Your task to perform on an android device: allow cookies in the chrome app Image 0: 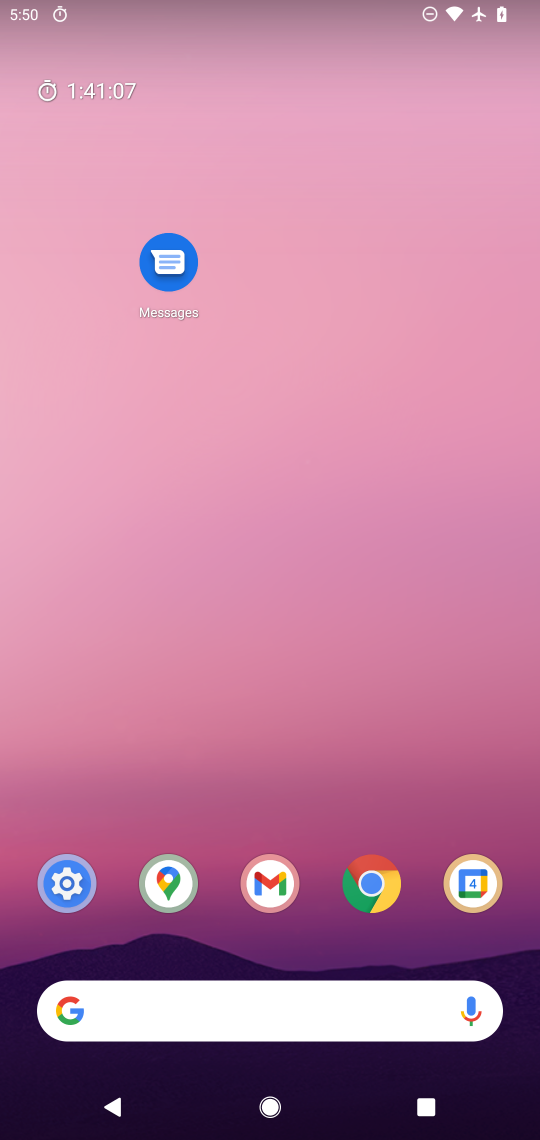
Step 0: click (376, 885)
Your task to perform on an android device: allow cookies in the chrome app Image 1: 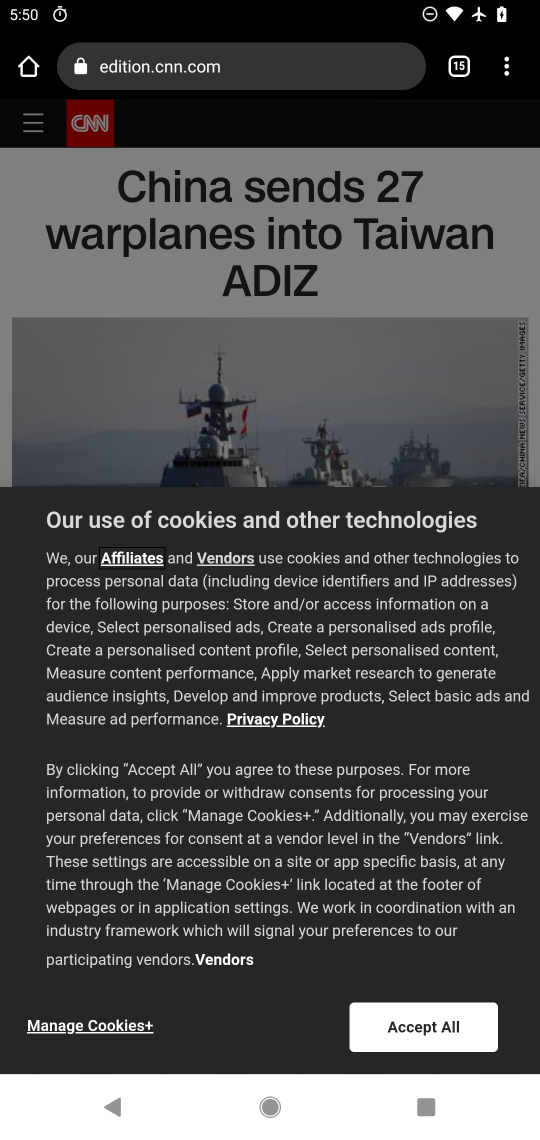
Step 1: click (509, 76)
Your task to perform on an android device: allow cookies in the chrome app Image 2: 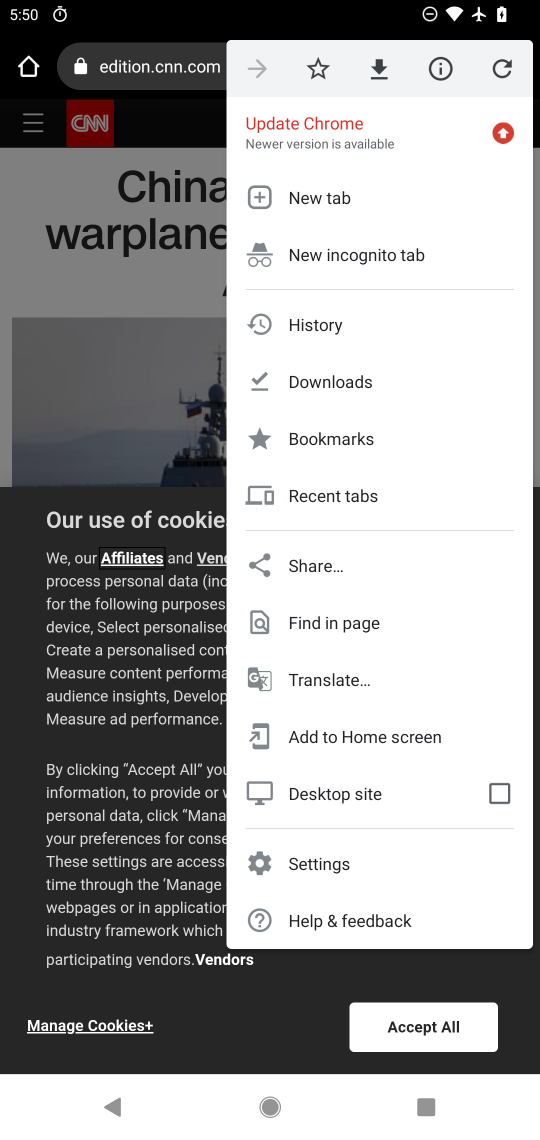
Step 2: click (317, 864)
Your task to perform on an android device: allow cookies in the chrome app Image 3: 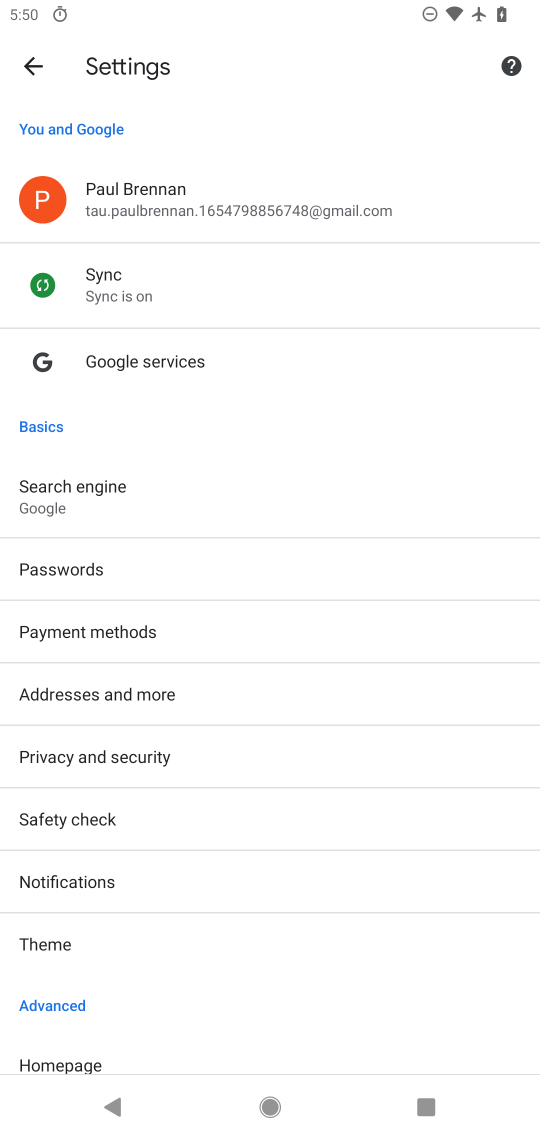
Step 3: drag from (188, 1001) to (219, 643)
Your task to perform on an android device: allow cookies in the chrome app Image 4: 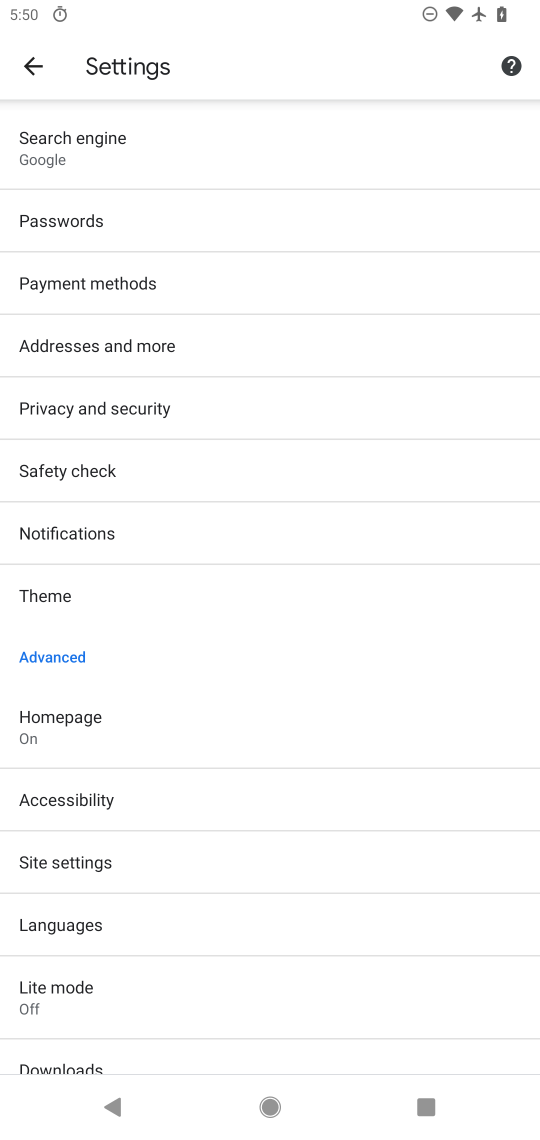
Step 4: click (64, 860)
Your task to perform on an android device: allow cookies in the chrome app Image 5: 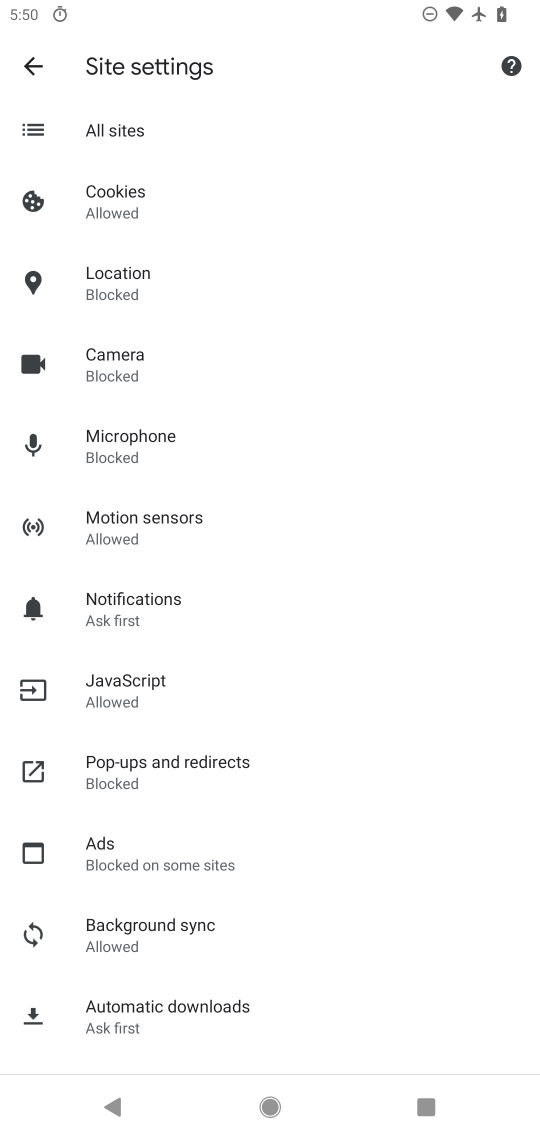
Step 5: click (119, 196)
Your task to perform on an android device: allow cookies in the chrome app Image 6: 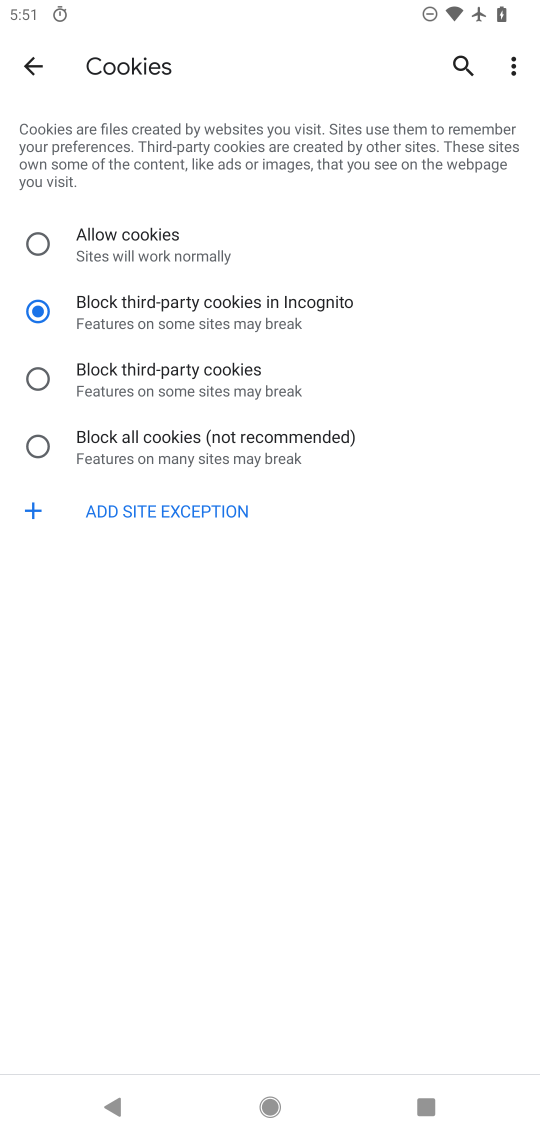
Step 6: click (38, 235)
Your task to perform on an android device: allow cookies in the chrome app Image 7: 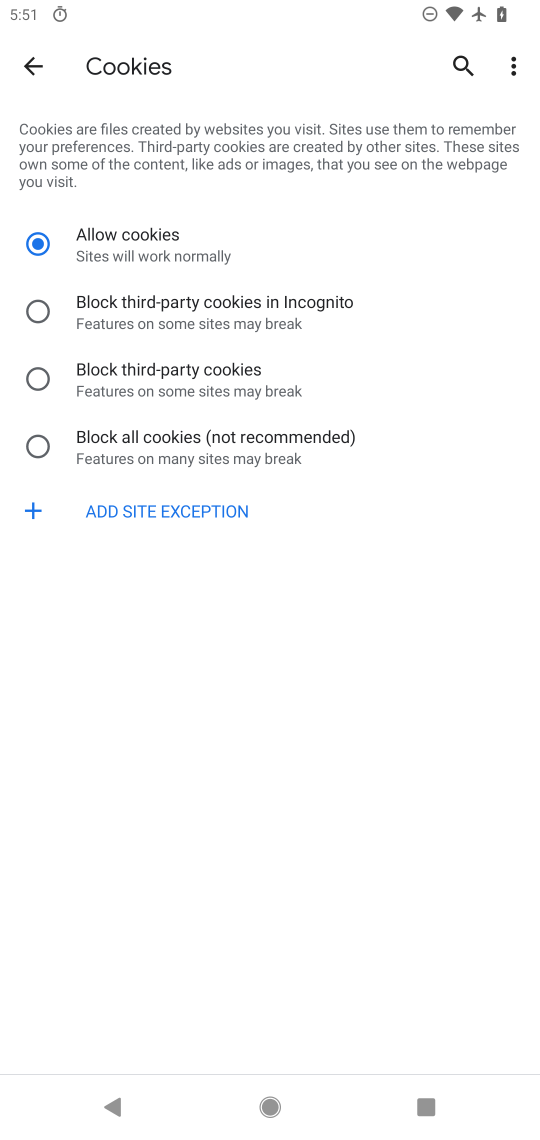
Step 7: task complete